Your task to perform on an android device: set the timer Image 0: 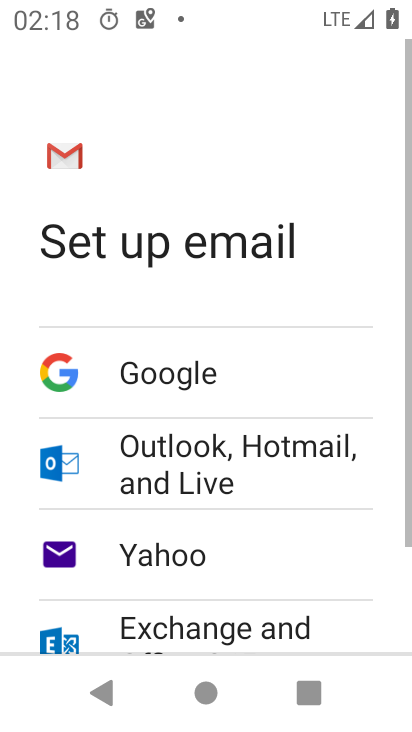
Step 0: press home button
Your task to perform on an android device: set the timer Image 1: 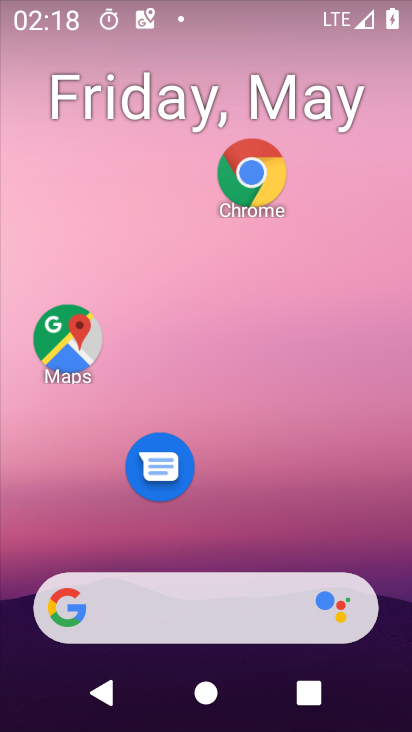
Step 1: drag from (250, 600) to (271, 124)
Your task to perform on an android device: set the timer Image 2: 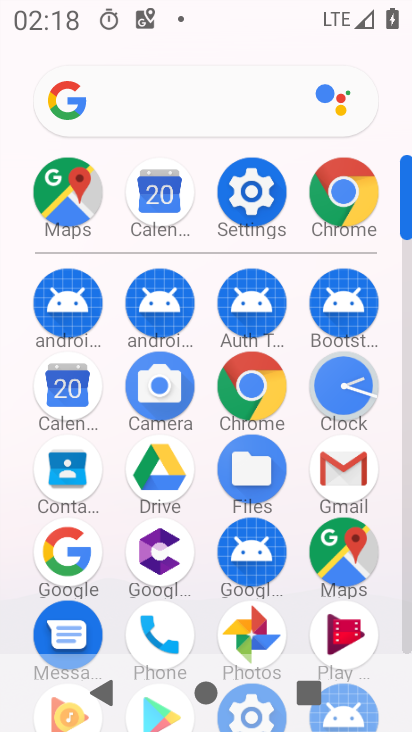
Step 2: click (320, 372)
Your task to perform on an android device: set the timer Image 3: 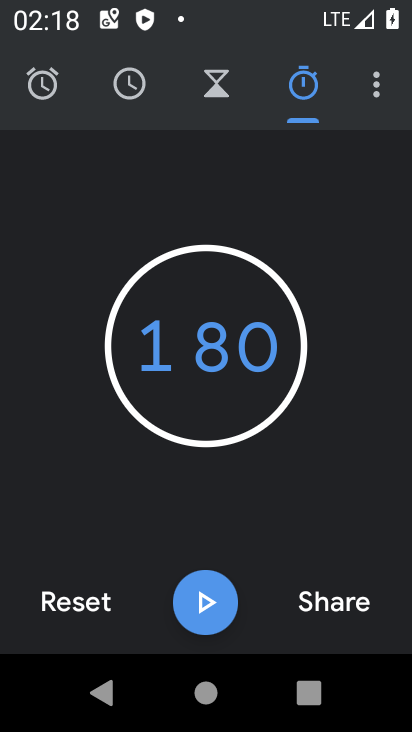
Step 3: click (201, 116)
Your task to perform on an android device: set the timer Image 4: 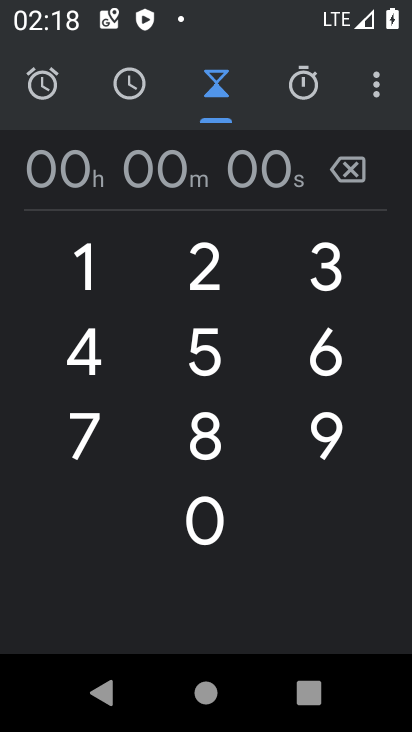
Step 4: click (220, 275)
Your task to perform on an android device: set the timer Image 5: 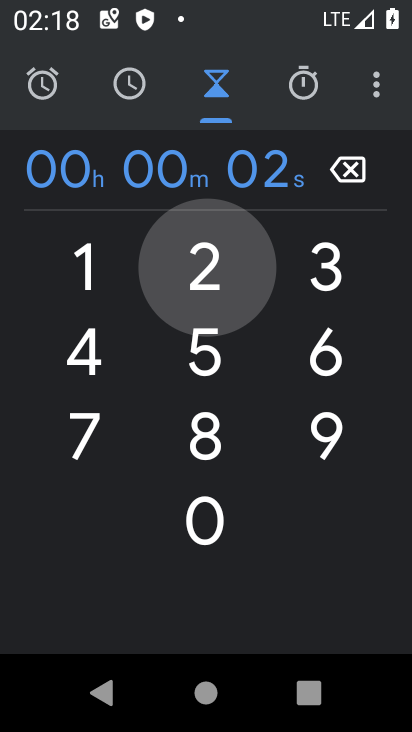
Step 5: click (237, 356)
Your task to perform on an android device: set the timer Image 6: 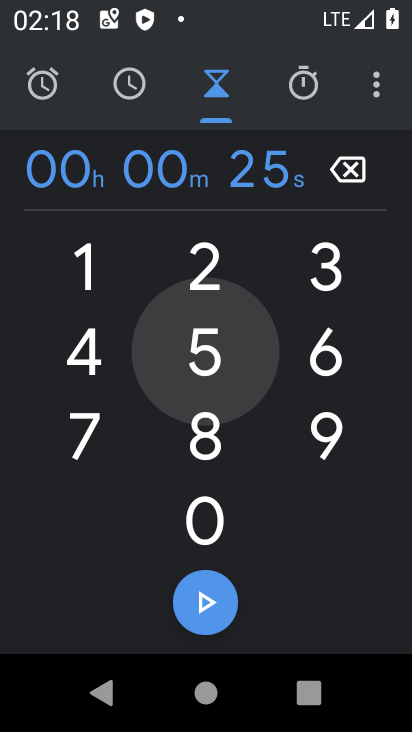
Step 6: click (232, 435)
Your task to perform on an android device: set the timer Image 7: 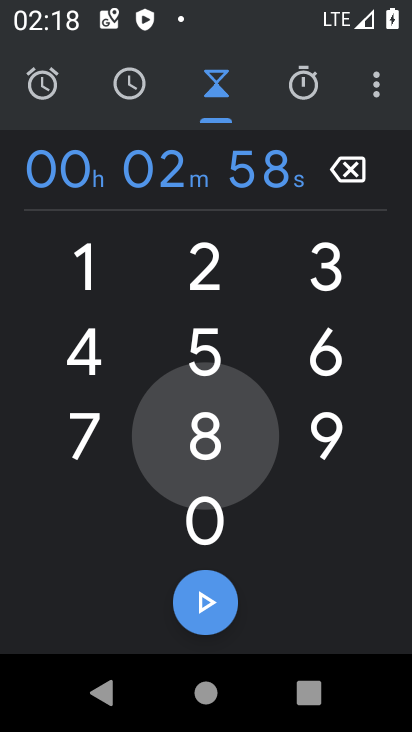
Step 7: click (200, 505)
Your task to perform on an android device: set the timer Image 8: 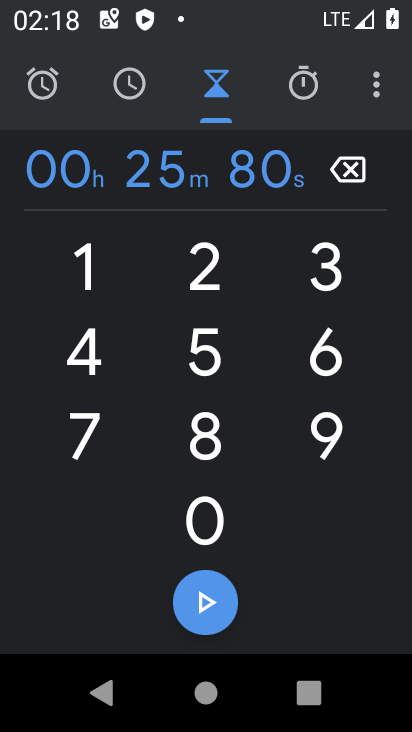
Step 8: click (99, 295)
Your task to perform on an android device: set the timer Image 9: 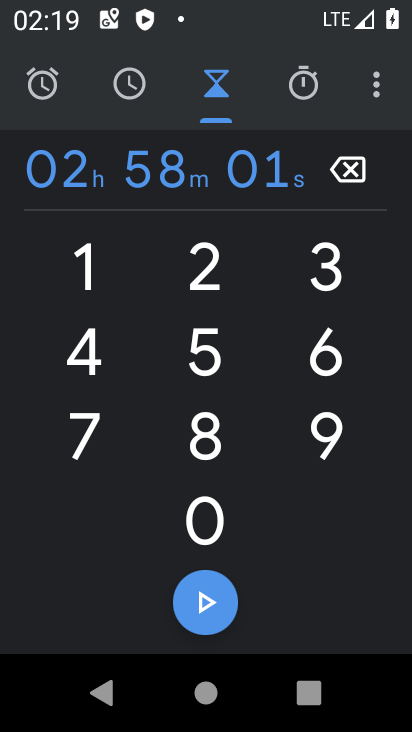
Step 9: task complete